Your task to perform on an android device: Open settings Image 0: 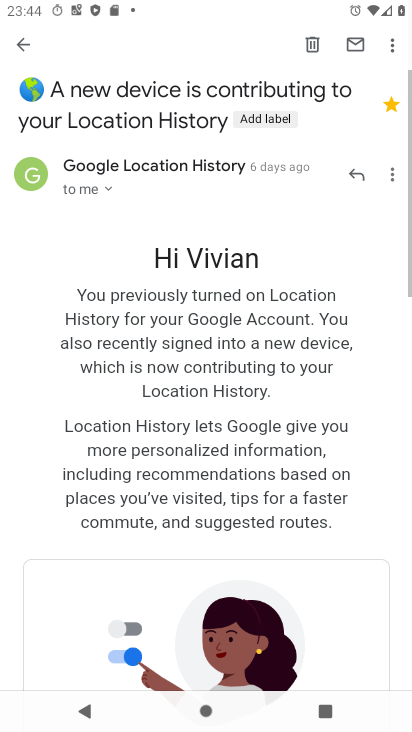
Step 0: press home button
Your task to perform on an android device: Open settings Image 1: 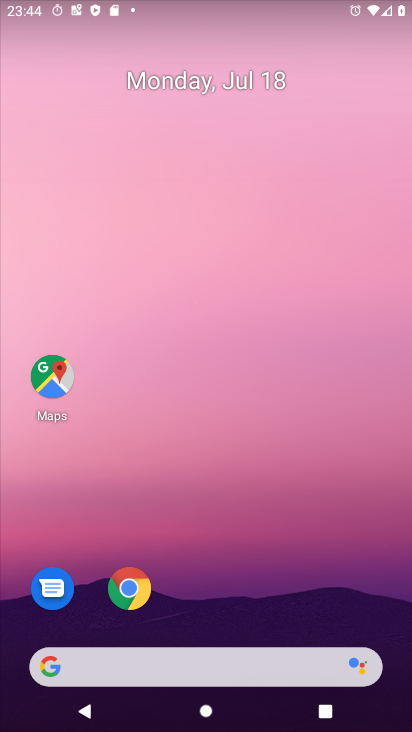
Step 1: drag from (203, 668) to (356, 102)
Your task to perform on an android device: Open settings Image 2: 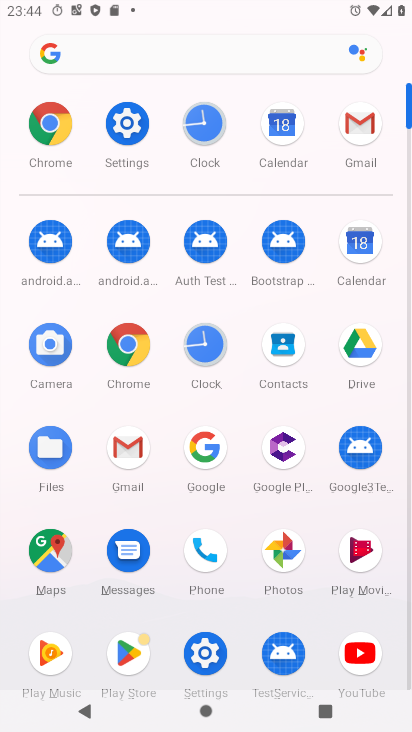
Step 2: click (123, 127)
Your task to perform on an android device: Open settings Image 3: 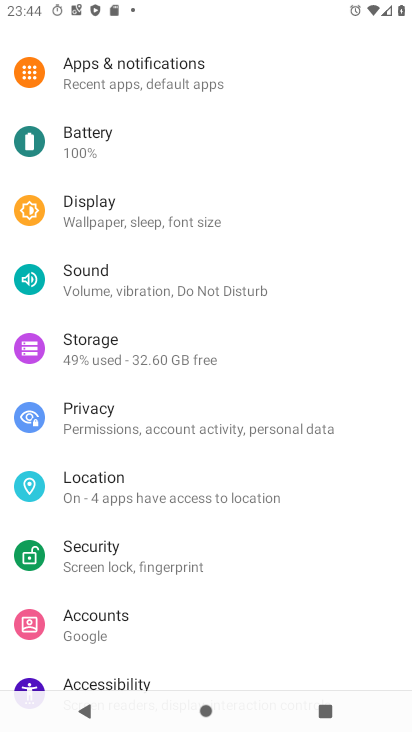
Step 3: task complete